Your task to perform on an android device: Search for custom made wallets on etsy.com Image 0: 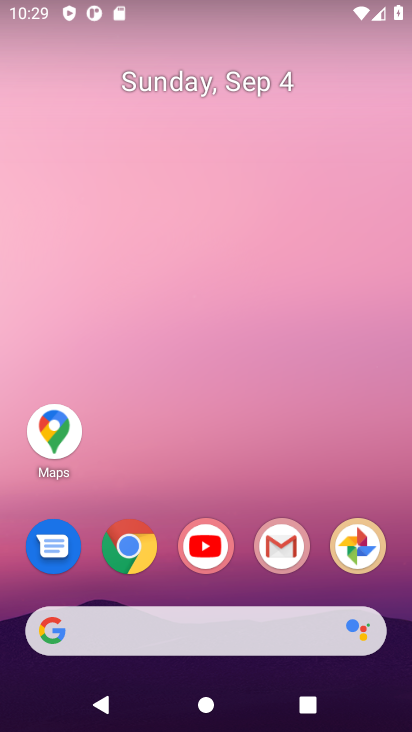
Step 0: click (138, 550)
Your task to perform on an android device: Search for custom made wallets on etsy.com Image 1: 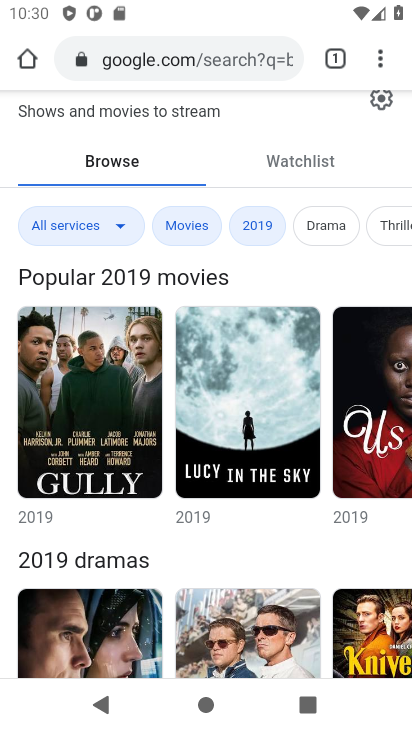
Step 1: click (213, 66)
Your task to perform on an android device: Search for custom made wallets on etsy.com Image 2: 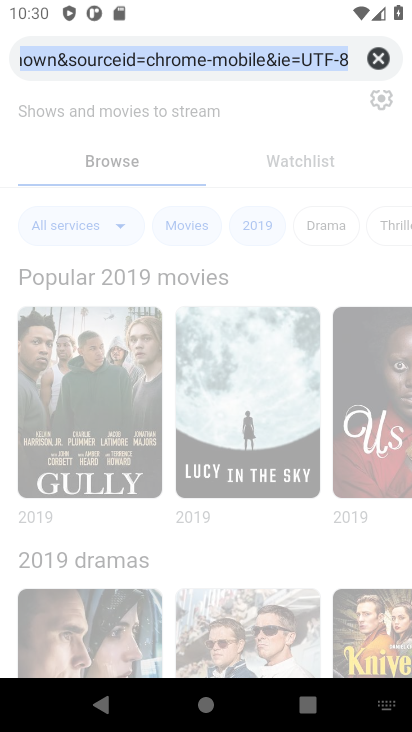
Step 2: type "etsy.com"
Your task to perform on an android device: Search for custom made wallets on etsy.com Image 3: 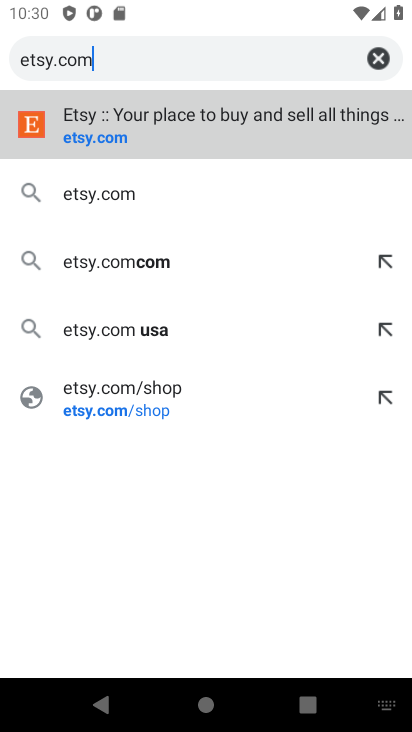
Step 3: click (87, 195)
Your task to perform on an android device: Search for custom made wallets on etsy.com Image 4: 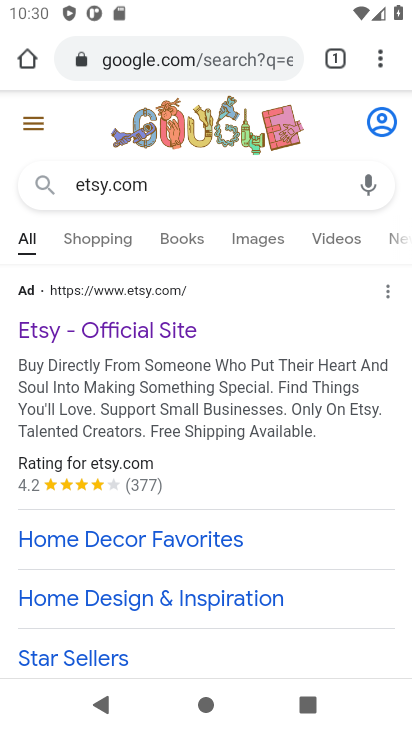
Step 4: click (101, 338)
Your task to perform on an android device: Search for custom made wallets on etsy.com Image 5: 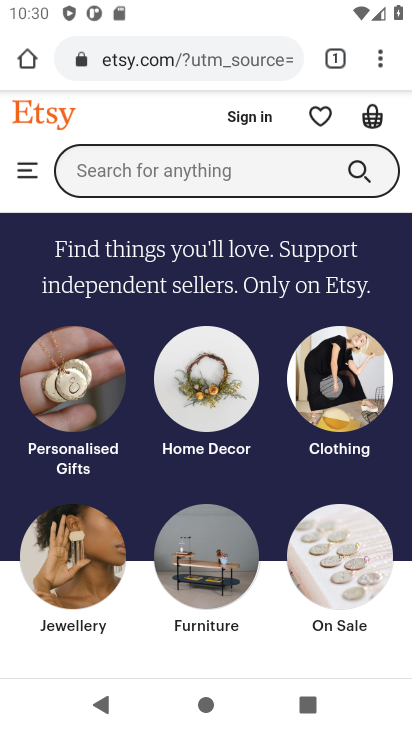
Step 5: click (187, 173)
Your task to perform on an android device: Search for custom made wallets on etsy.com Image 6: 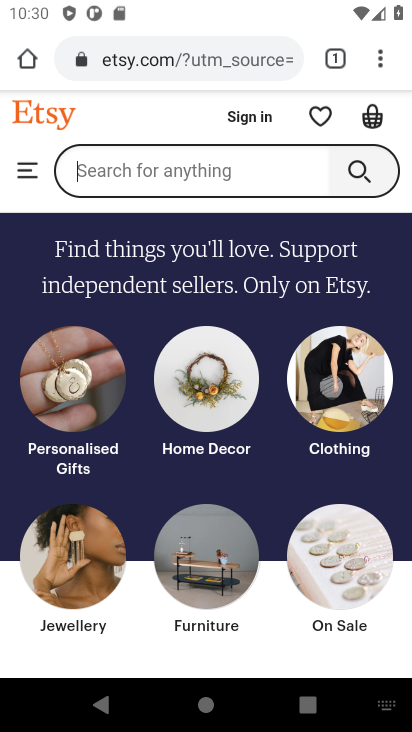
Step 6: type "custom made wallets"
Your task to perform on an android device: Search for custom made wallets on etsy.com Image 7: 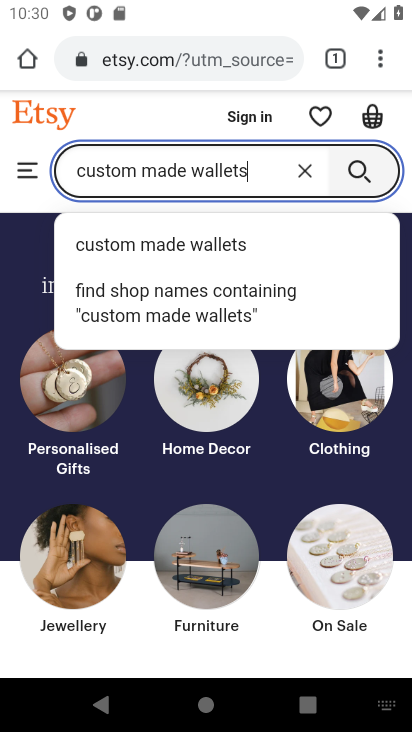
Step 7: click (159, 240)
Your task to perform on an android device: Search for custom made wallets on etsy.com Image 8: 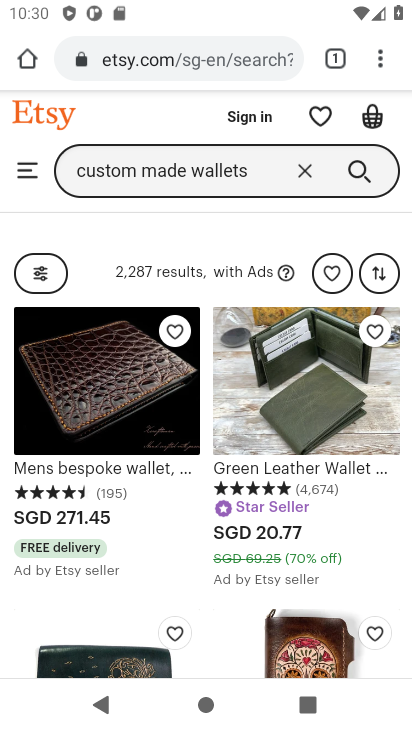
Step 8: task complete